Your task to perform on an android device: Open the phone app and click the voicemail tab. Image 0: 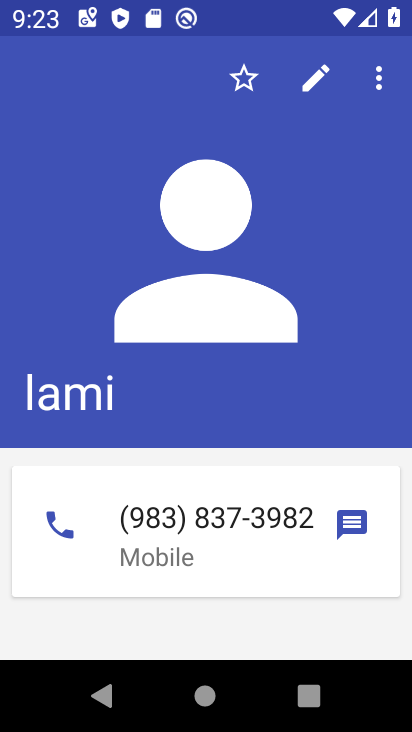
Step 0: press home button
Your task to perform on an android device: Open the phone app and click the voicemail tab. Image 1: 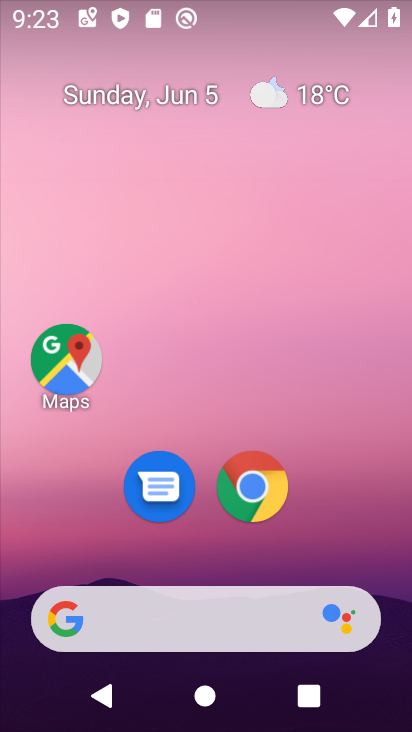
Step 1: drag from (383, 500) to (345, 111)
Your task to perform on an android device: Open the phone app and click the voicemail tab. Image 2: 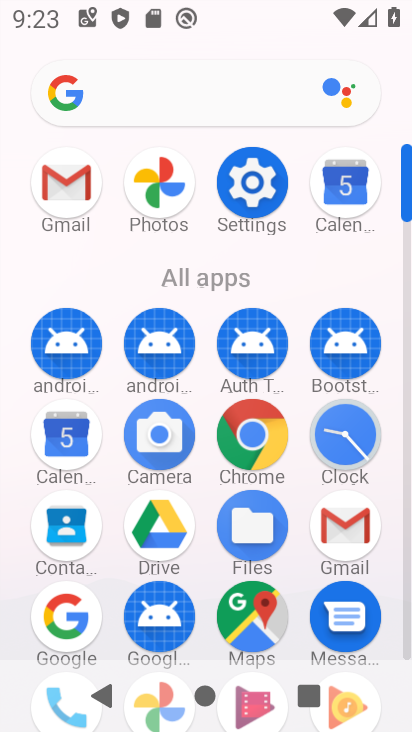
Step 2: drag from (279, 674) to (321, 353)
Your task to perform on an android device: Open the phone app and click the voicemail tab. Image 3: 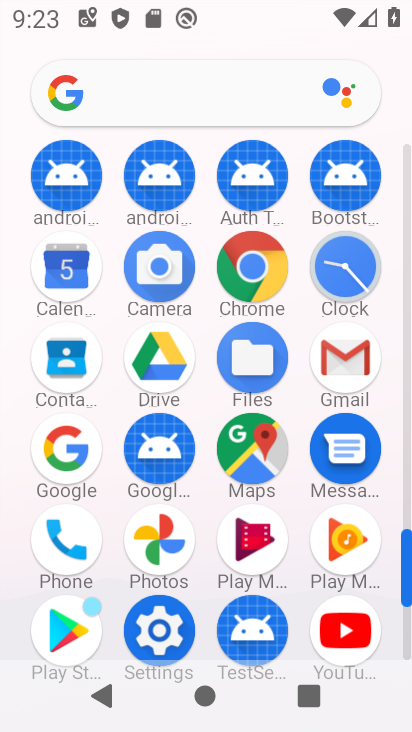
Step 3: click (49, 542)
Your task to perform on an android device: Open the phone app and click the voicemail tab. Image 4: 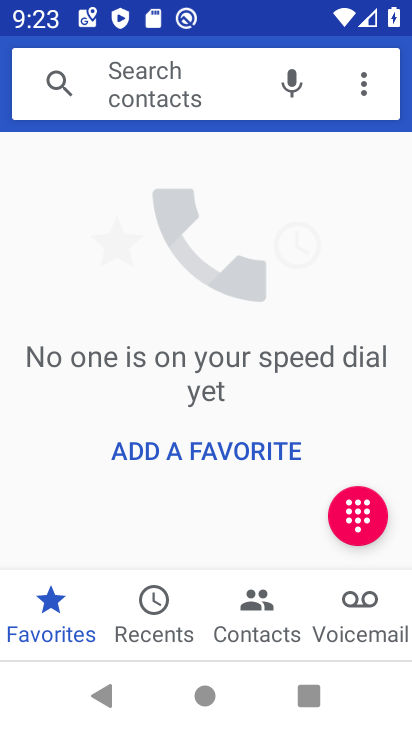
Step 4: click (333, 602)
Your task to perform on an android device: Open the phone app and click the voicemail tab. Image 5: 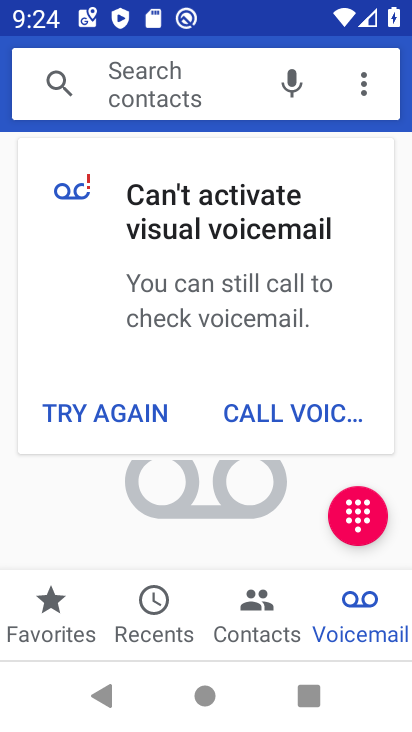
Step 5: task complete